Your task to perform on an android device: Open the stopwatch Image 0: 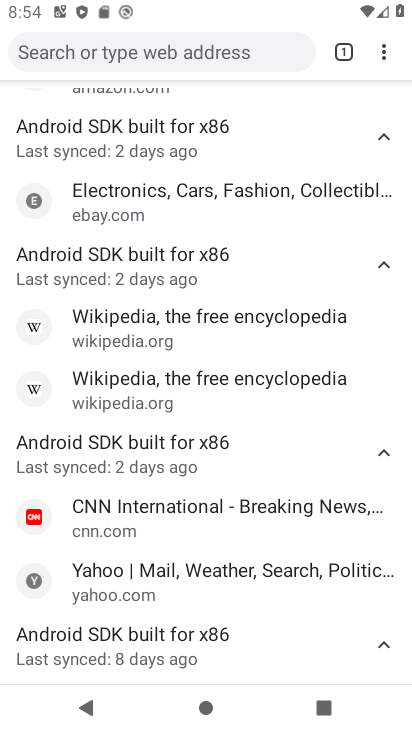
Step 0: press home button
Your task to perform on an android device: Open the stopwatch Image 1: 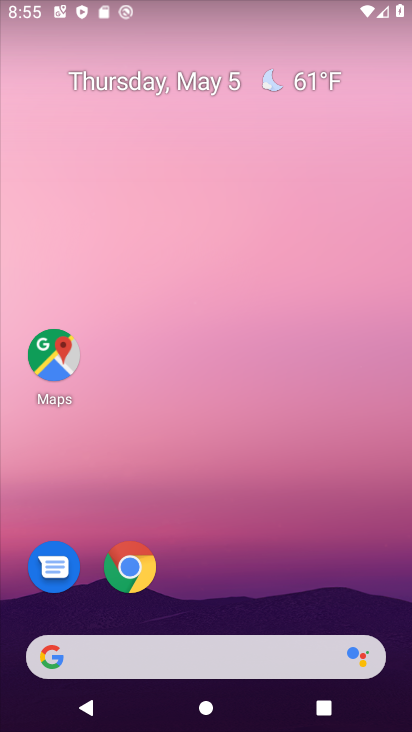
Step 1: drag from (299, 484) to (311, 139)
Your task to perform on an android device: Open the stopwatch Image 2: 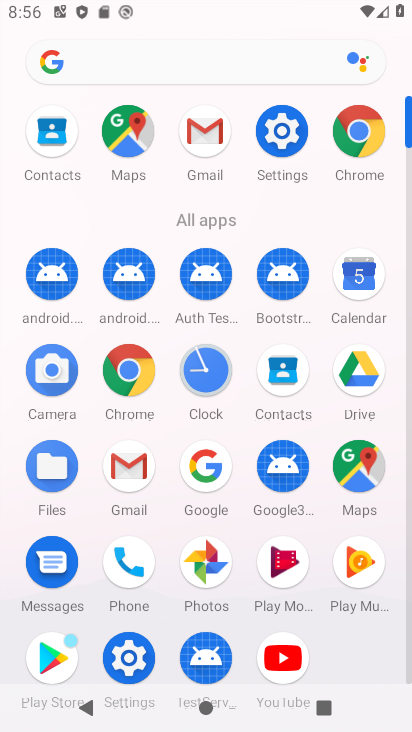
Step 2: click (205, 378)
Your task to perform on an android device: Open the stopwatch Image 3: 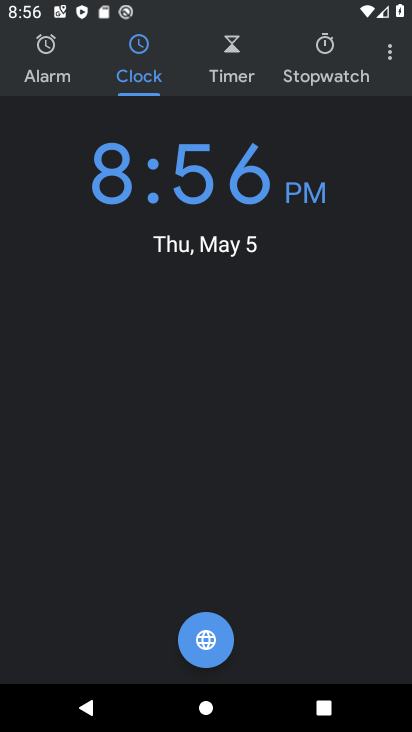
Step 3: click (325, 59)
Your task to perform on an android device: Open the stopwatch Image 4: 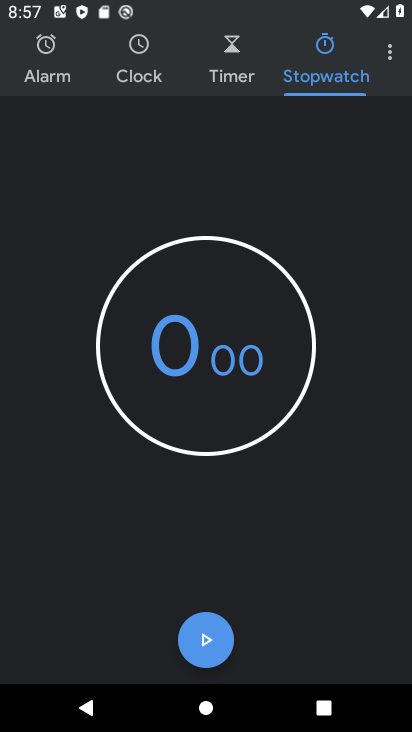
Step 4: task complete